Your task to perform on an android device: change the clock style Image 0: 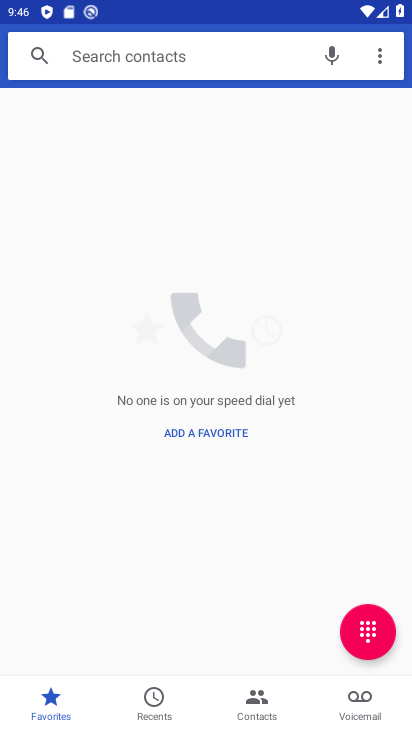
Step 0: press back button
Your task to perform on an android device: change the clock style Image 1: 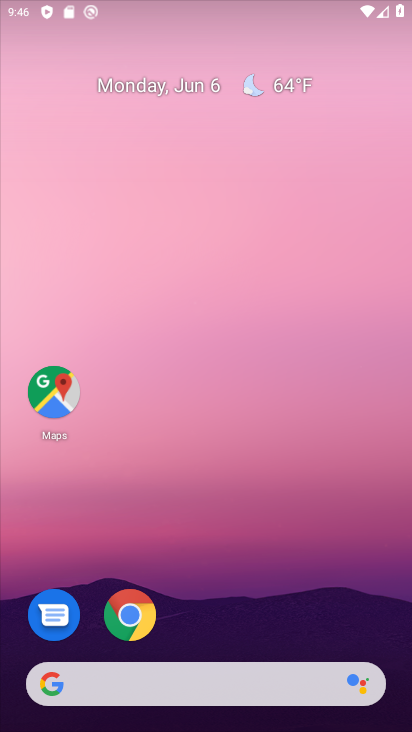
Step 1: drag from (176, 622) to (280, 54)
Your task to perform on an android device: change the clock style Image 2: 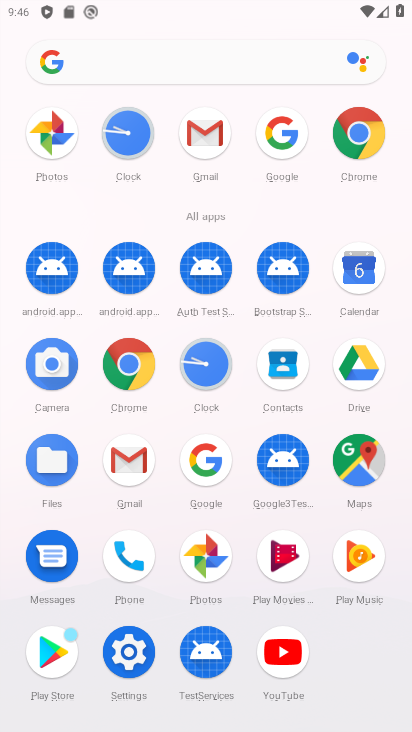
Step 2: click (112, 128)
Your task to perform on an android device: change the clock style Image 3: 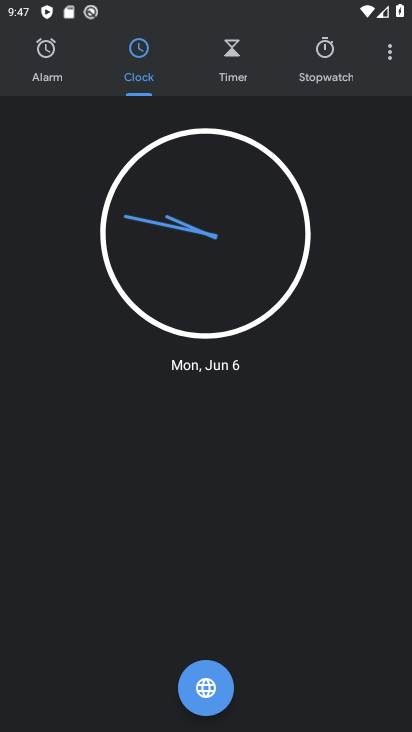
Step 3: click (390, 48)
Your task to perform on an android device: change the clock style Image 4: 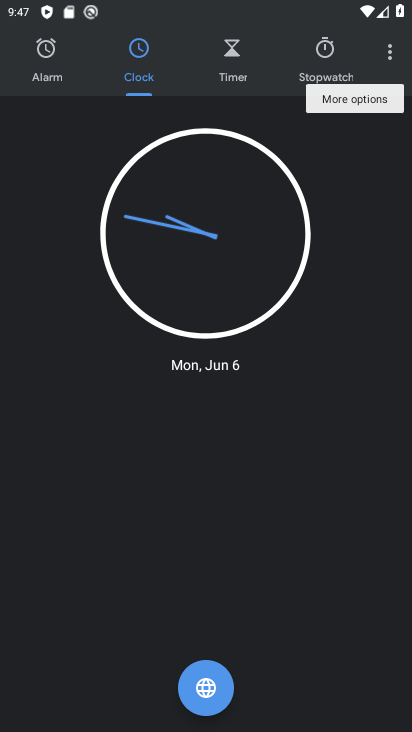
Step 4: click (393, 38)
Your task to perform on an android device: change the clock style Image 5: 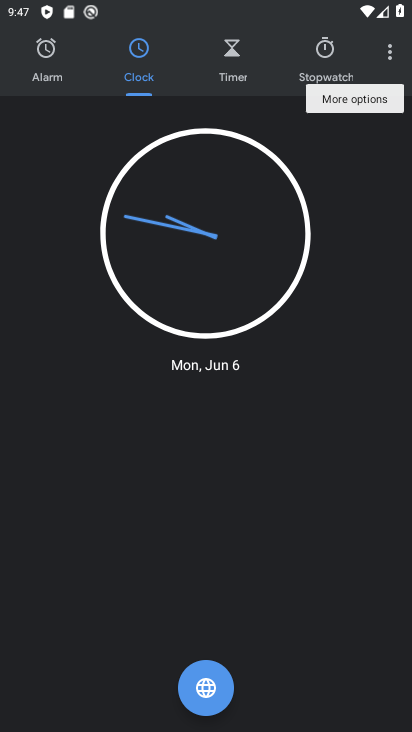
Step 5: click (388, 44)
Your task to perform on an android device: change the clock style Image 6: 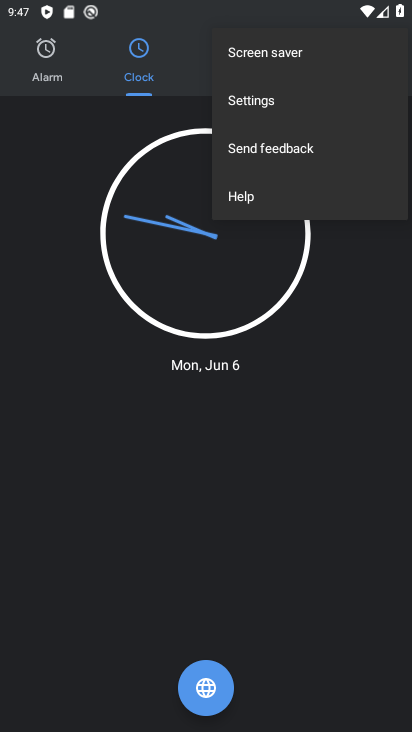
Step 6: click (274, 108)
Your task to perform on an android device: change the clock style Image 7: 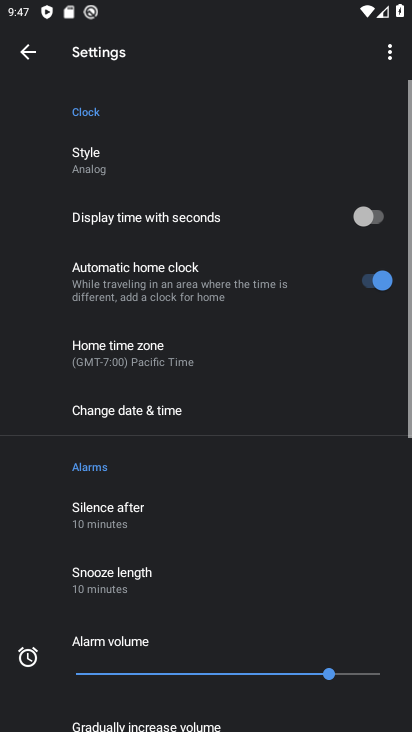
Step 7: click (114, 153)
Your task to perform on an android device: change the clock style Image 8: 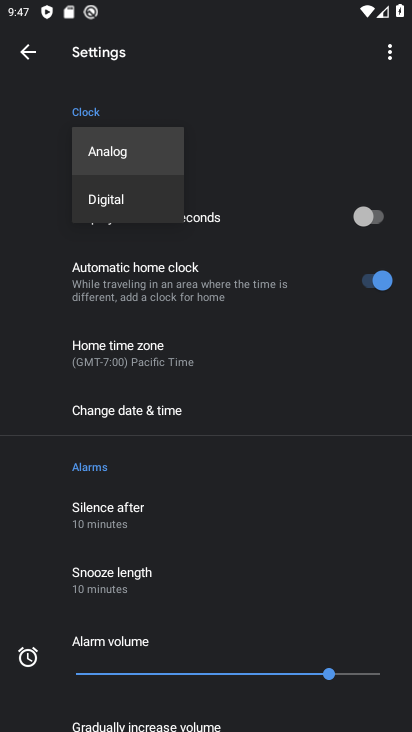
Step 8: click (133, 193)
Your task to perform on an android device: change the clock style Image 9: 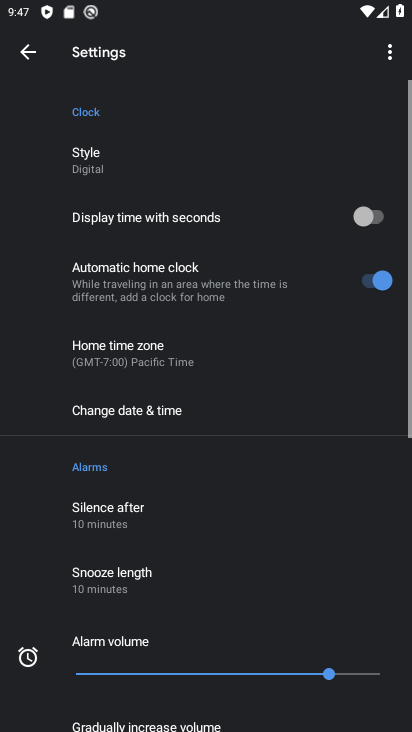
Step 9: task complete